Your task to perform on an android device: allow notifications from all sites in the chrome app Image 0: 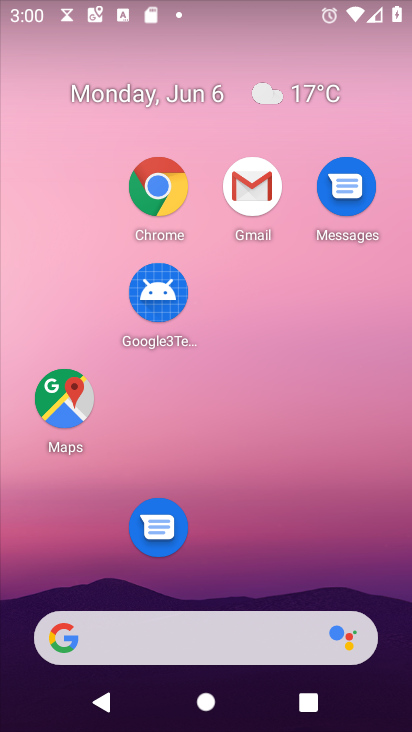
Step 0: click (167, 195)
Your task to perform on an android device: allow notifications from all sites in the chrome app Image 1: 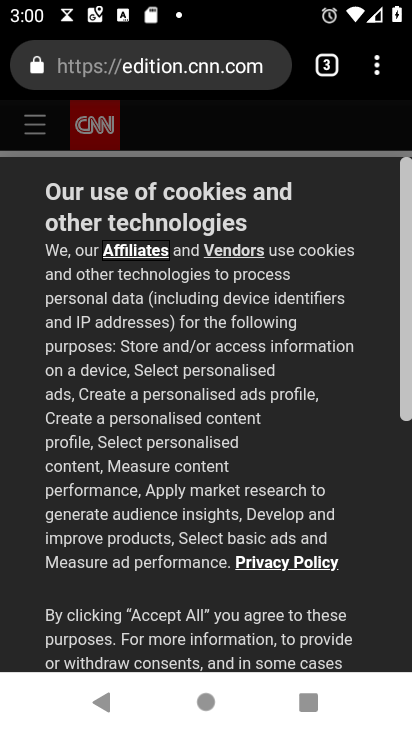
Step 1: click (364, 54)
Your task to perform on an android device: allow notifications from all sites in the chrome app Image 2: 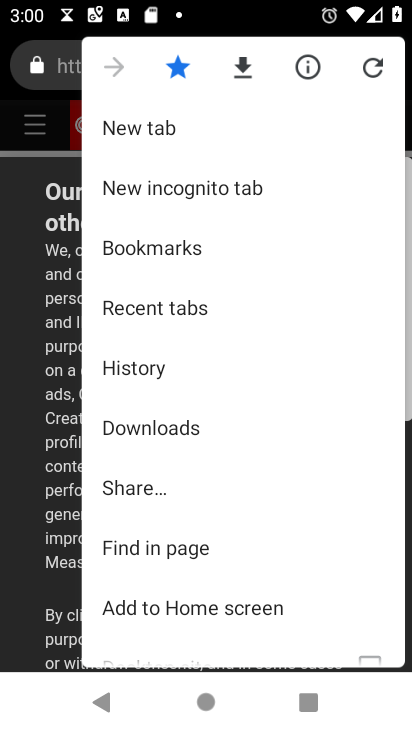
Step 2: drag from (353, 521) to (335, 144)
Your task to perform on an android device: allow notifications from all sites in the chrome app Image 3: 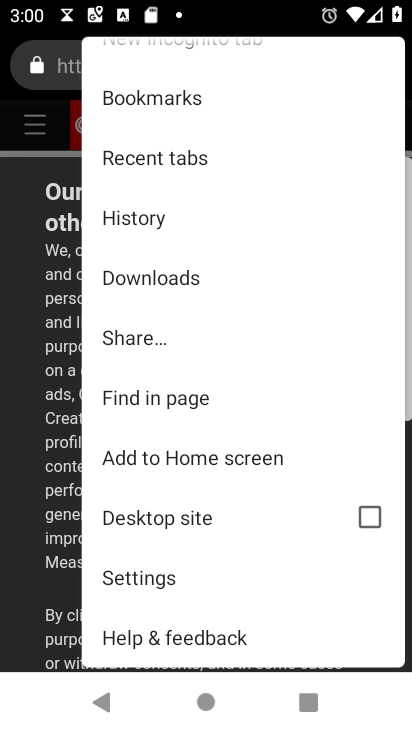
Step 3: click (180, 577)
Your task to perform on an android device: allow notifications from all sites in the chrome app Image 4: 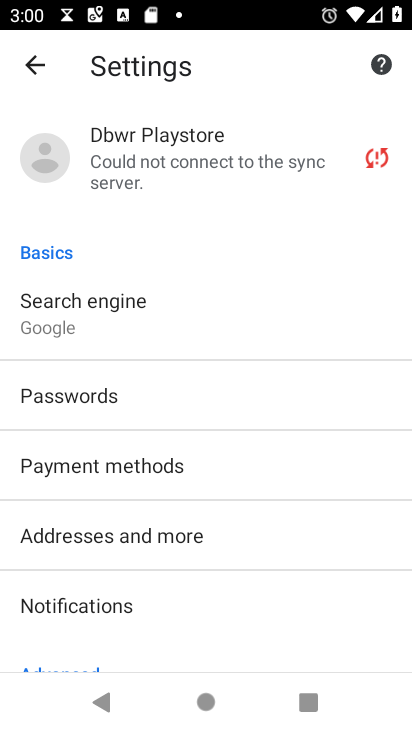
Step 4: click (51, 599)
Your task to perform on an android device: allow notifications from all sites in the chrome app Image 5: 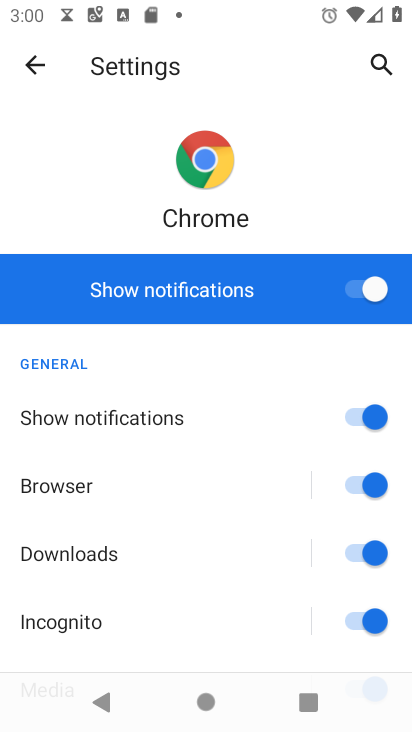
Step 5: drag from (159, 499) to (161, 129)
Your task to perform on an android device: allow notifications from all sites in the chrome app Image 6: 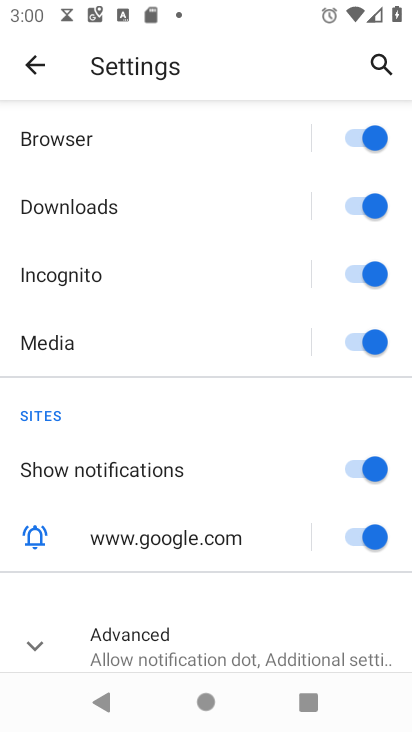
Step 6: drag from (193, 545) to (160, 126)
Your task to perform on an android device: allow notifications from all sites in the chrome app Image 7: 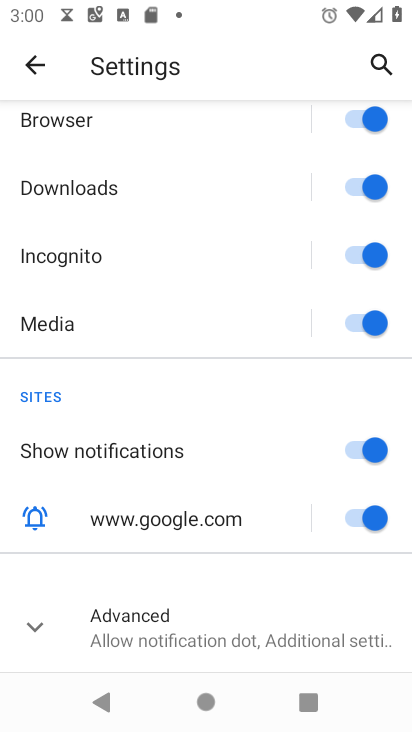
Step 7: click (203, 595)
Your task to perform on an android device: allow notifications from all sites in the chrome app Image 8: 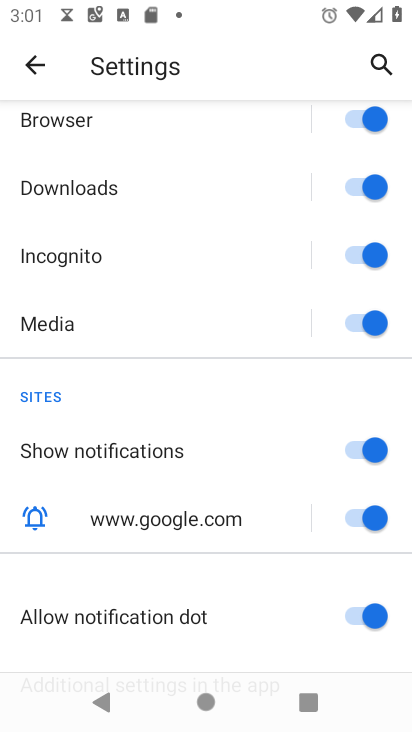
Step 8: task complete